Your task to perform on an android device: Go to wifi settings Image 0: 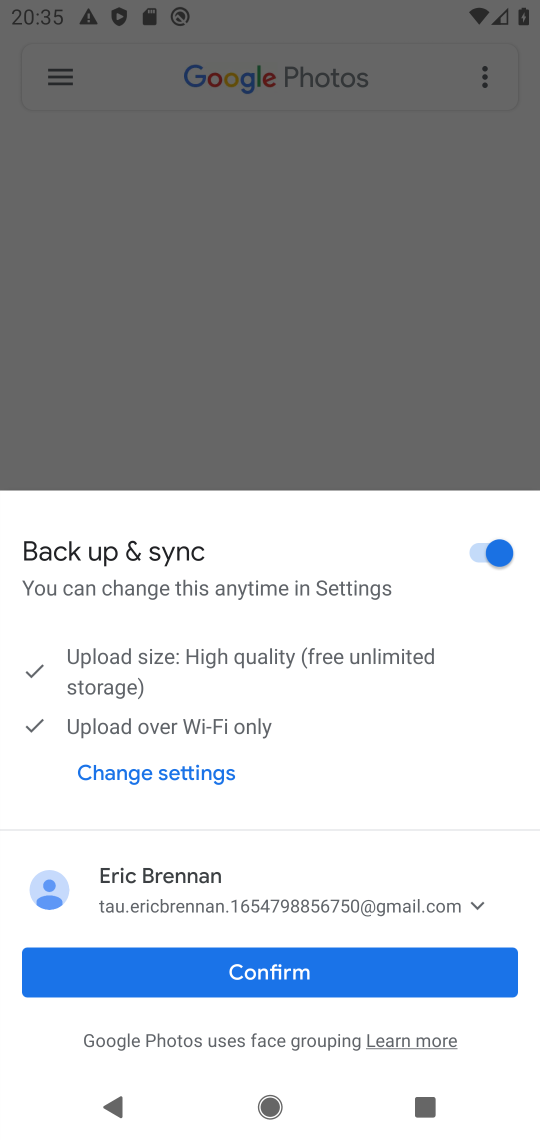
Step 0: press home button
Your task to perform on an android device: Go to wifi settings Image 1: 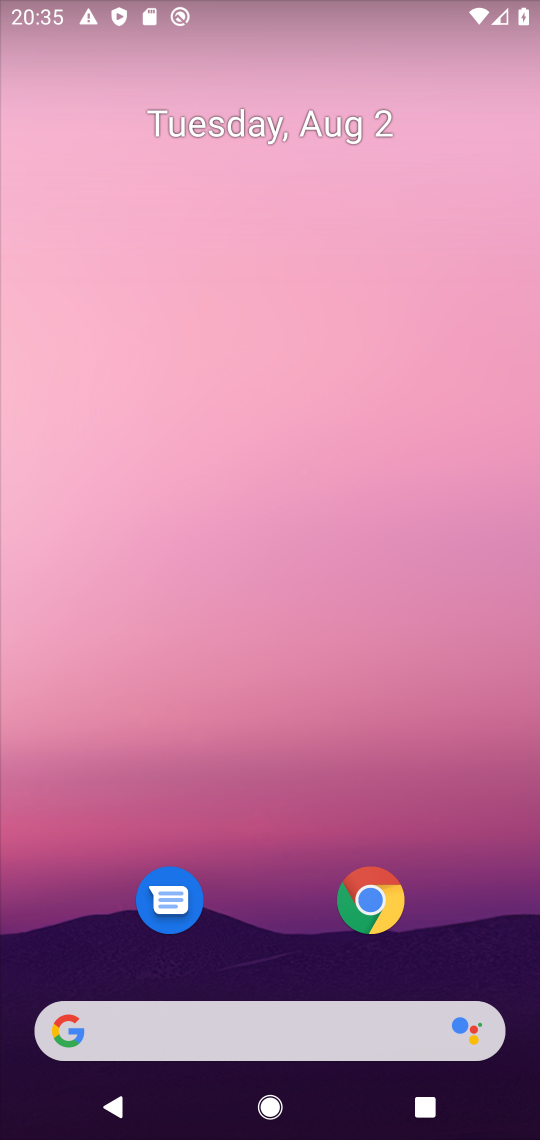
Step 1: drag from (303, 707) to (345, 10)
Your task to perform on an android device: Go to wifi settings Image 2: 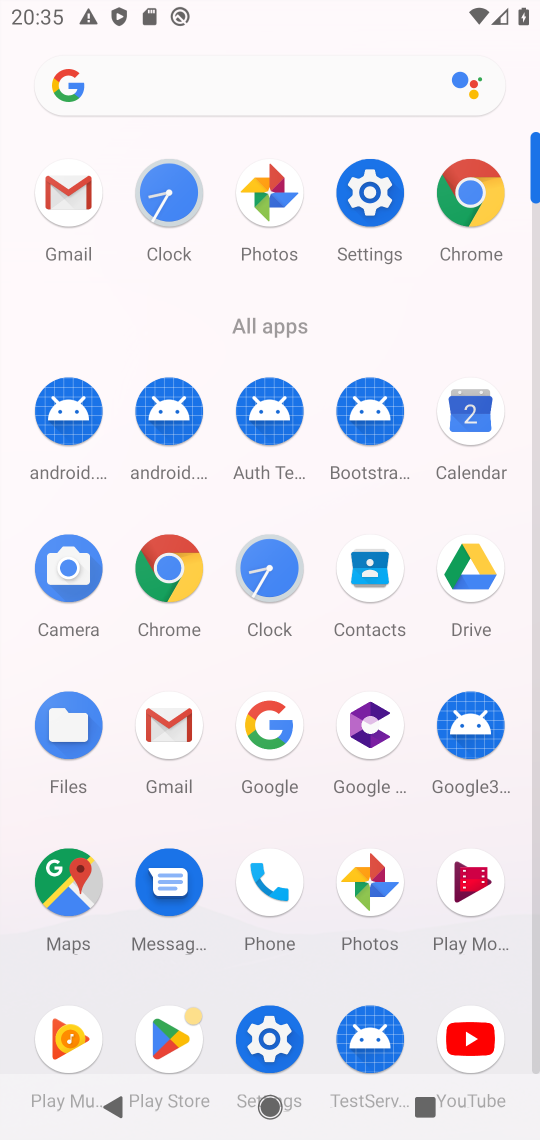
Step 2: click (364, 190)
Your task to perform on an android device: Go to wifi settings Image 3: 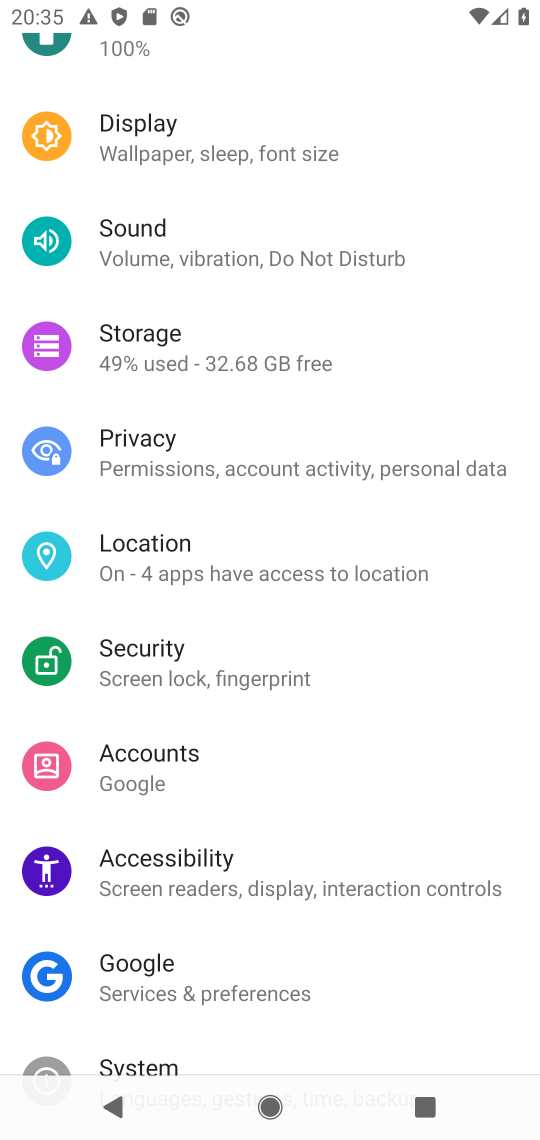
Step 3: drag from (292, 415) to (327, 913)
Your task to perform on an android device: Go to wifi settings Image 4: 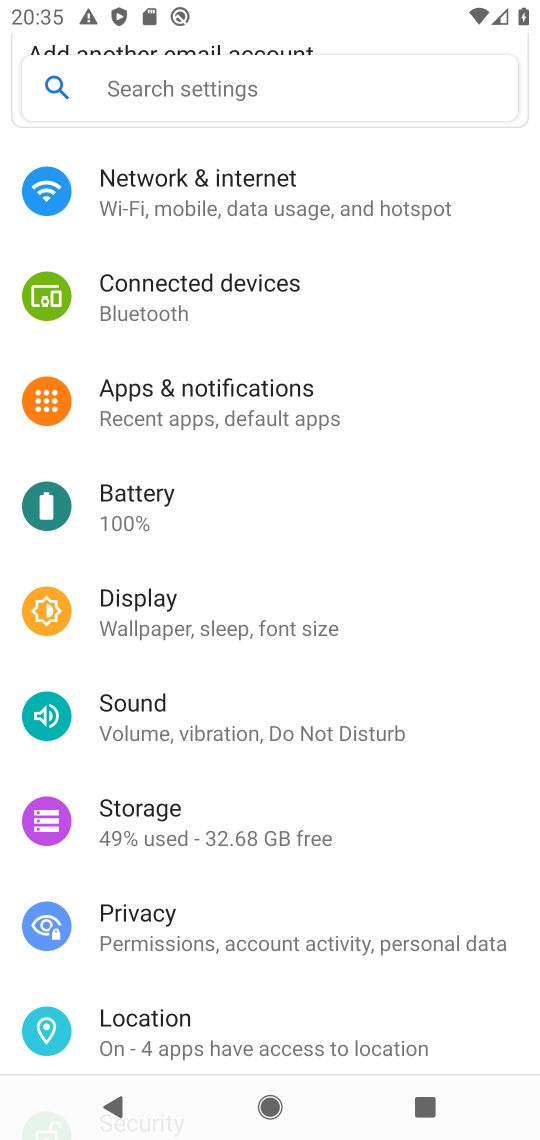
Step 4: click (319, 190)
Your task to perform on an android device: Go to wifi settings Image 5: 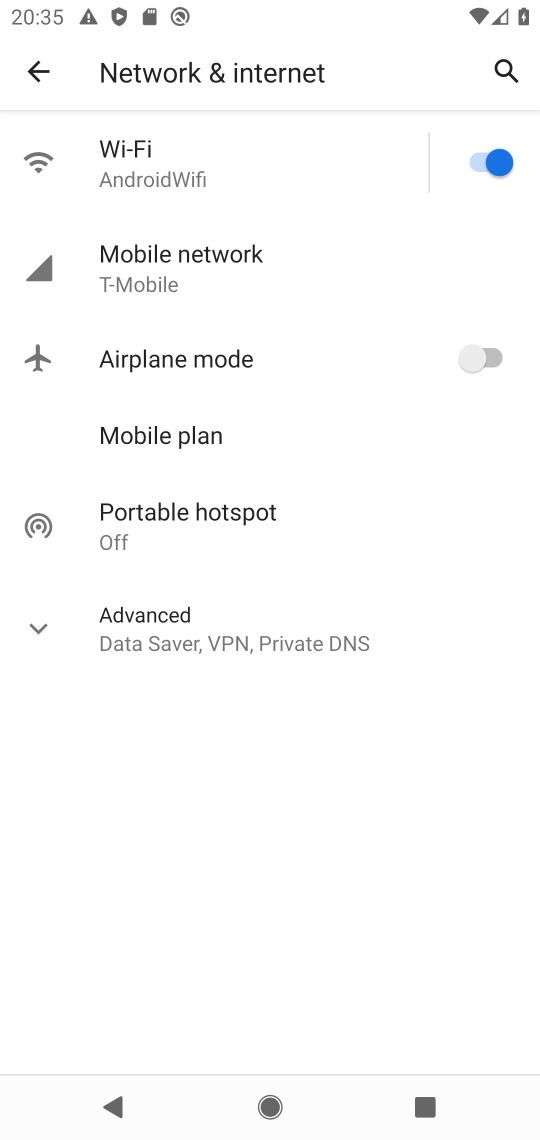
Step 5: click (168, 172)
Your task to perform on an android device: Go to wifi settings Image 6: 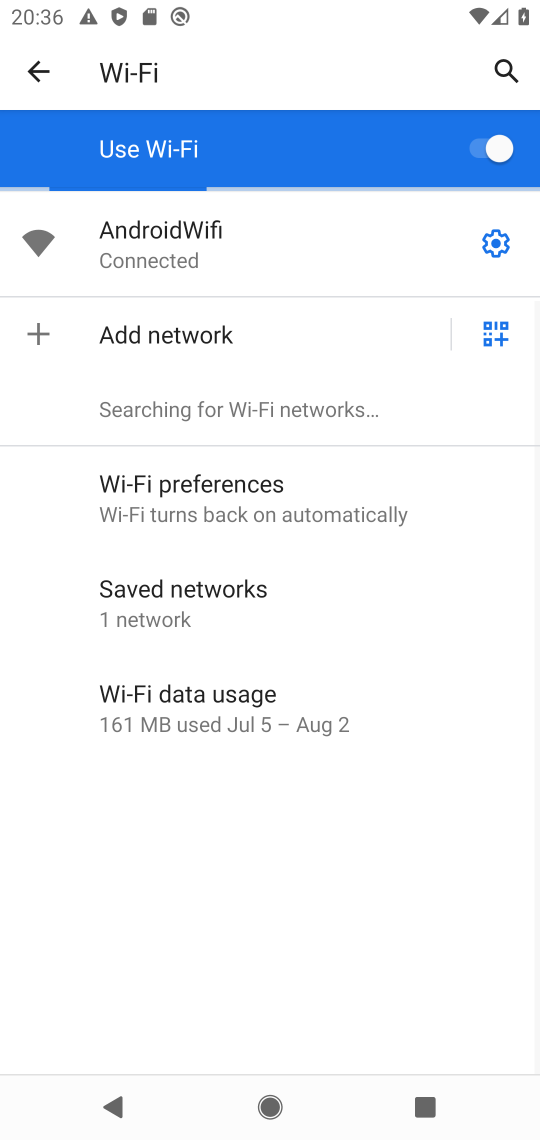
Step 6: task complete